Your task to perform on an android device: add a label to a message in the gmail app Image 0: 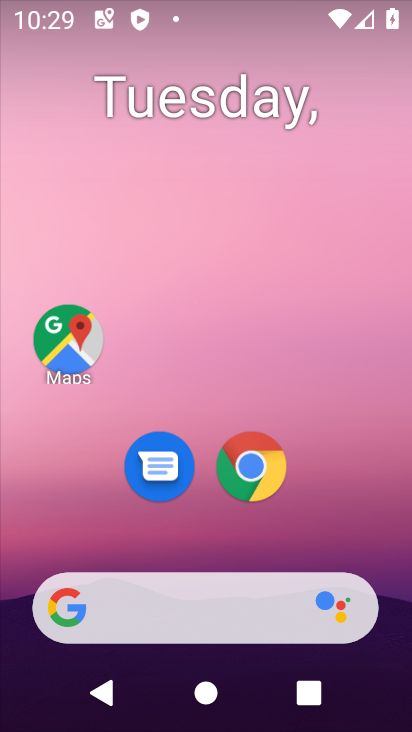
Step 0: drag from (138, 563) to (204, 152)
Your task to perform on an android device: add a label to a message in the gmail app Image 1: 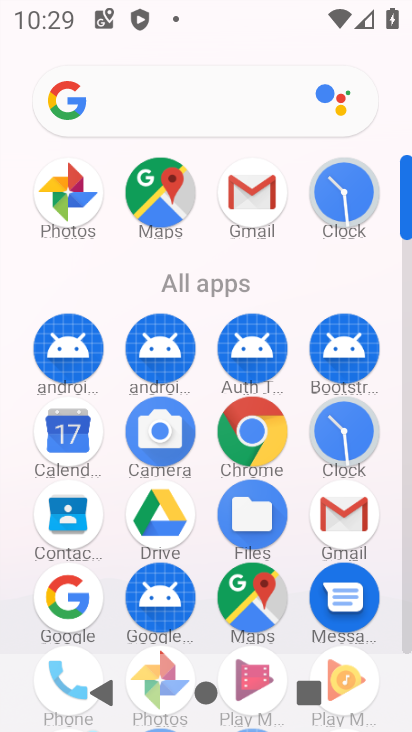
Step 1: click (348, 524)
Your task to perform on an android device: add a label to a message in the gmail app Image 2: 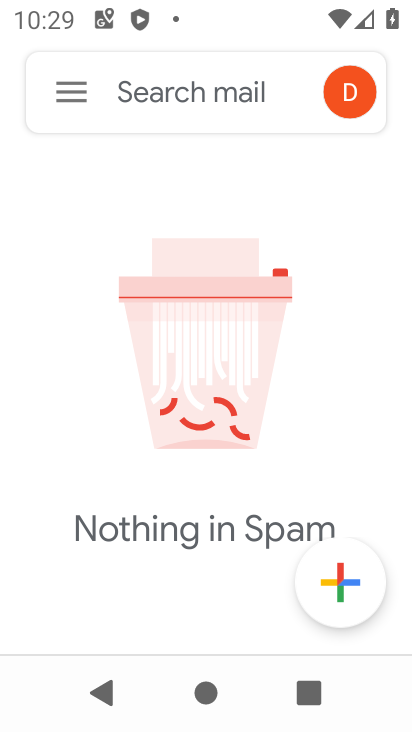
Step 2: click (56, 85)
Your task to perform on an android device: add a label to a message in the gmail app Image 3: 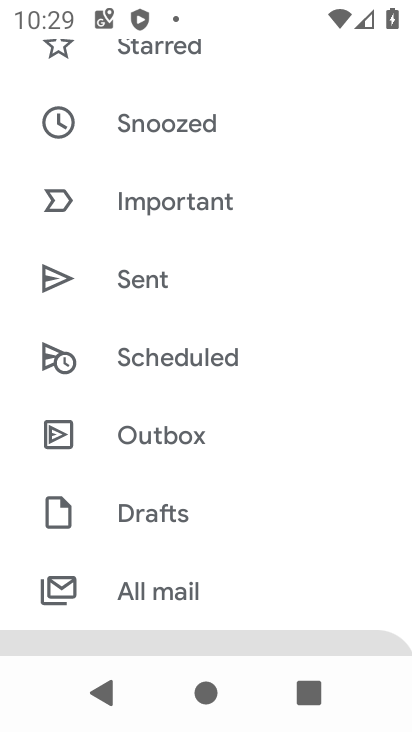
Step 3: drag from (246, 212) to (303, 273)
Your task to perform on an android device: add a label to a message in the gmail app Image 4: 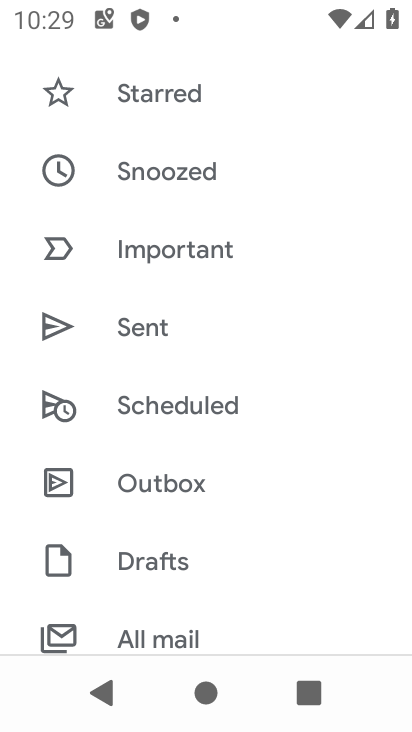
Step 4: click (162, 618)
Your task to perform on an android device: add a label to a message in the gmail app Image 5: 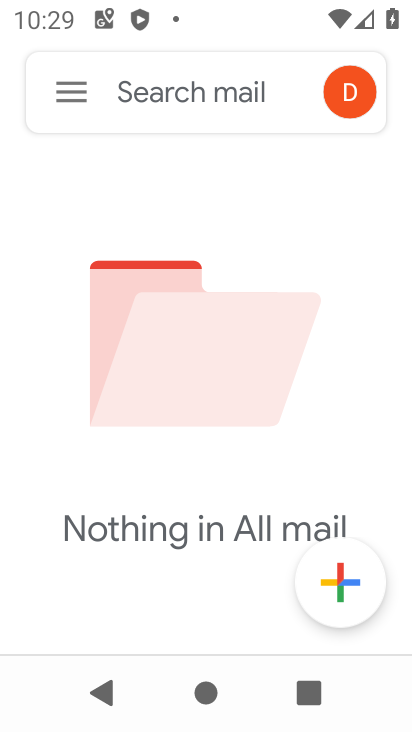
Step 5: task complete